Your task to perform on an android device: Open ESPN.com Image 0: 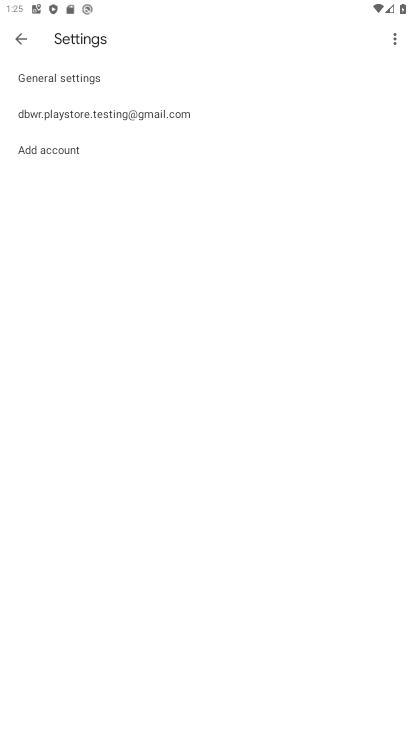
Step 0: press back button
Your task to perform on an android device: Open ESPN.com Image 1: 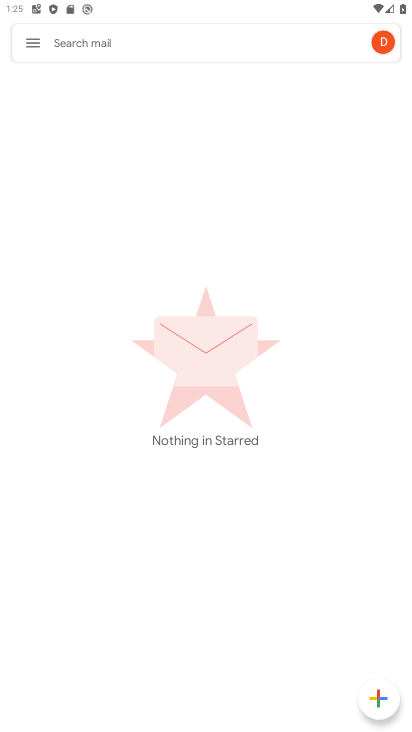
Step 1: press back button
Your task to perform on an android device: Open ESPN.com Image 2: 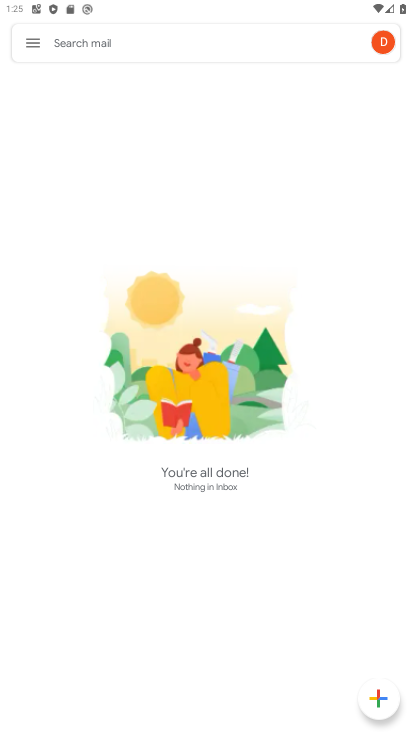
Step 2: press home button
Your task to perform on an android device: Open ESPN.com Image 3: 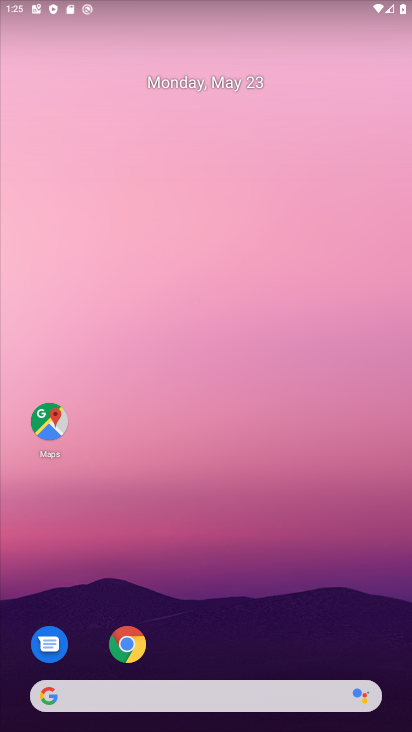
Step 3: drag from (309, 529) to (277, 1)
Your task to perform on an android device: Open ESPN.com Image 4: 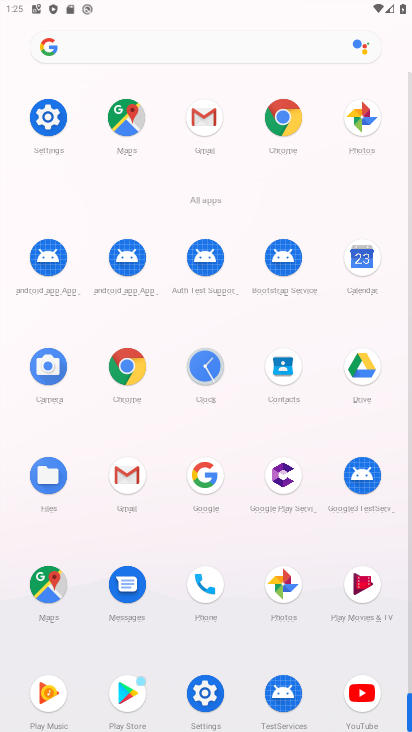
Step 4: click (284, 112)
Your task to perform on an android device: Open ESPN.com Image 5: 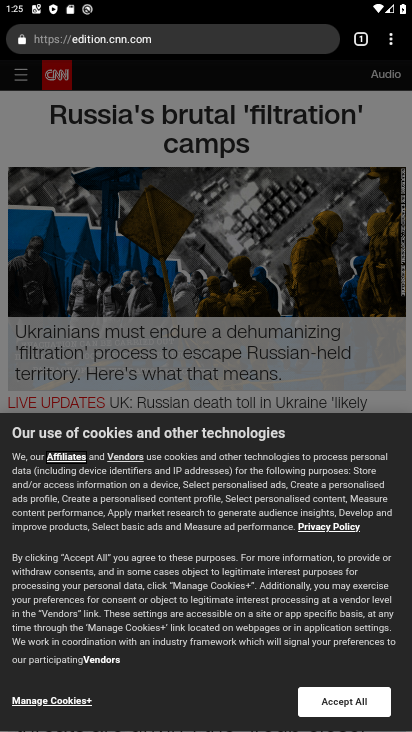
Step 5: click (184, 29)
Your task to perform on an android device: Open ESPN.com Image 6: 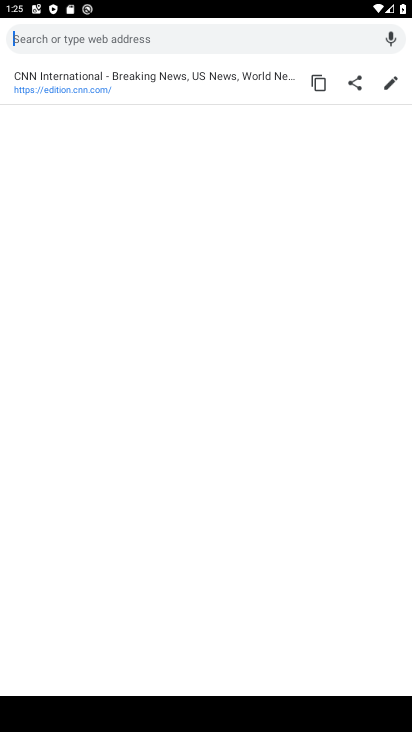
Step 6: type "ESPN.com"
Your task to perform on an android device: Open ESPN.com Image 7: 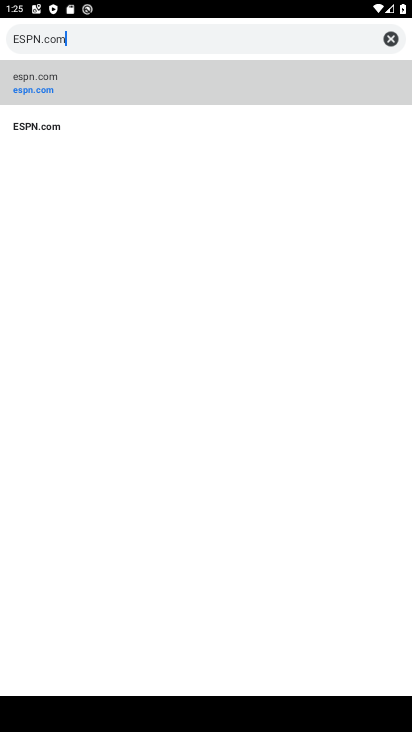
Step 7: type ""
Your task to perform on an android device: Open ESPN.com Image 8: 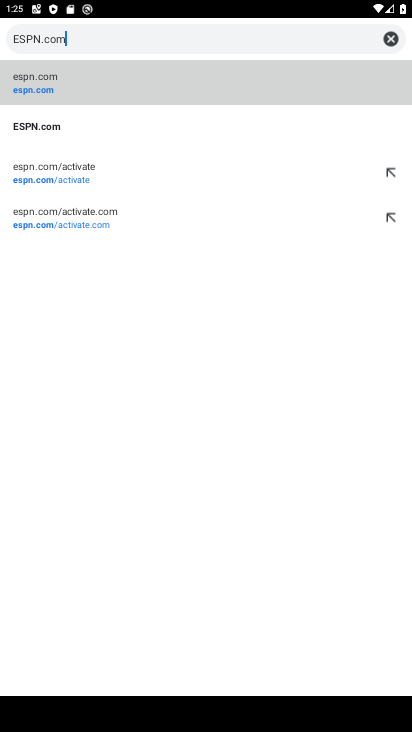
Step 8: click (67, 75)
Your task to perform on an android device: Open ESPN.com Image 9: 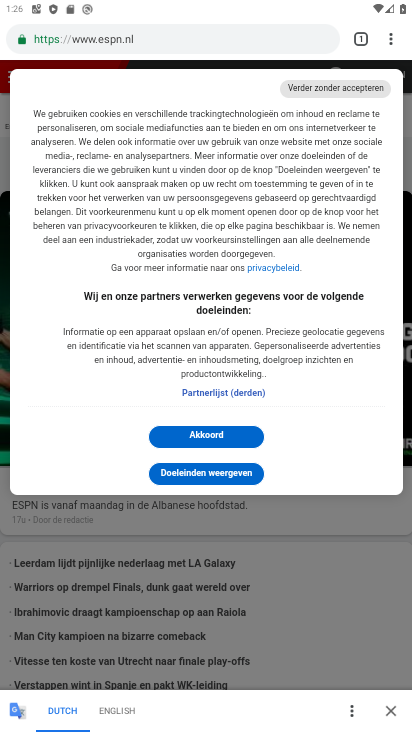
Step 9: click (203, 430)
Your task to perform on an android device: Open ESPN.com Image 10: 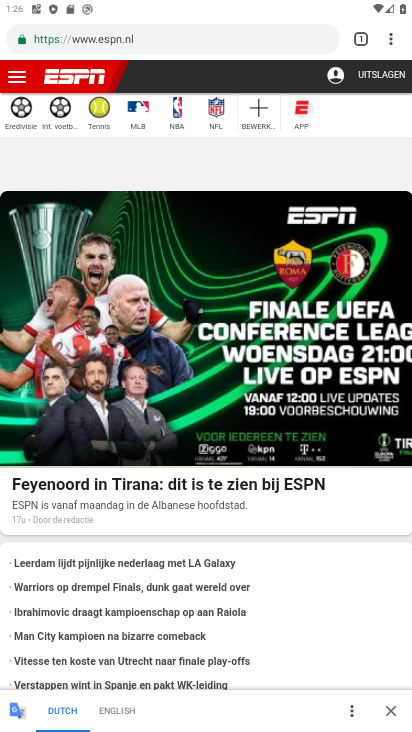
Step 10: task complete